Your task to perform on an android device: When is my next meeting? Image 0: 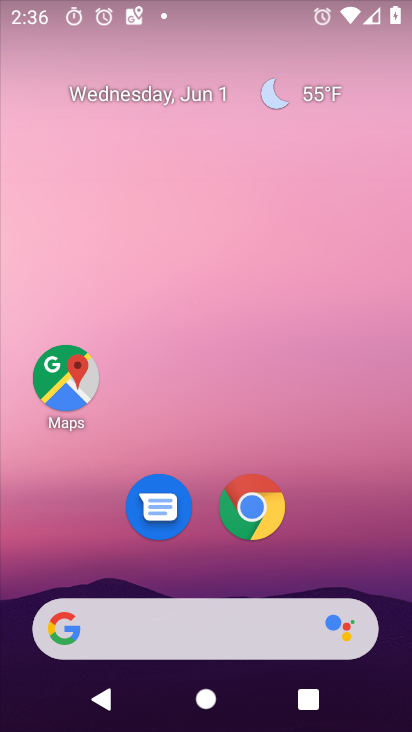
Step 0: drag from (371, 599) to (328, 8)
Your task to perform on an android device: When is my next meeting? Image 1: 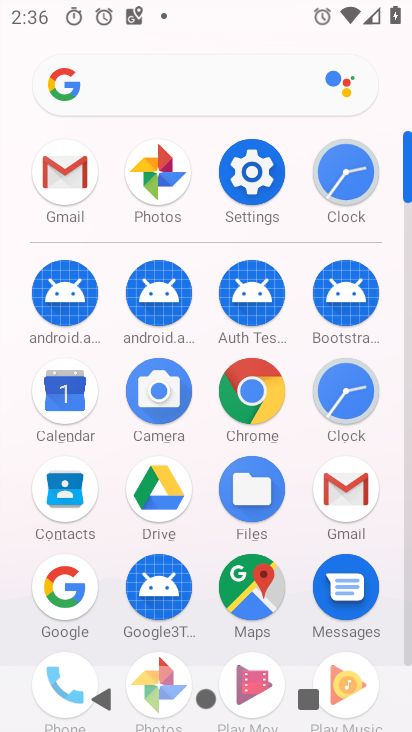
Step 1: click (62, 408)
Your task to perform on an android device: When is my next meeting? Image 2: 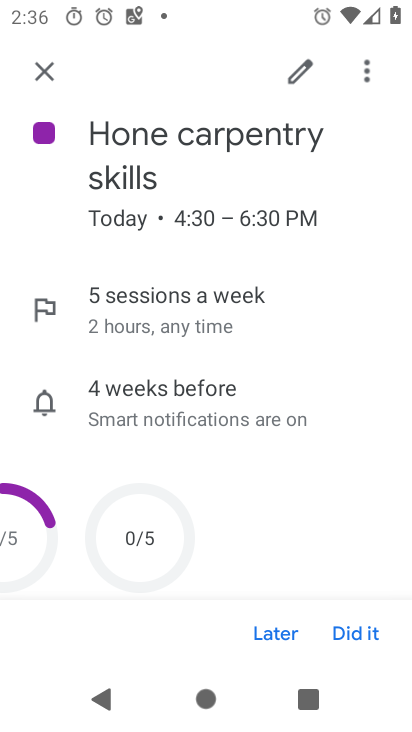
Step 2: click (35, 79)
Your task to perform on an android device: When is my next meeting? Image 3: 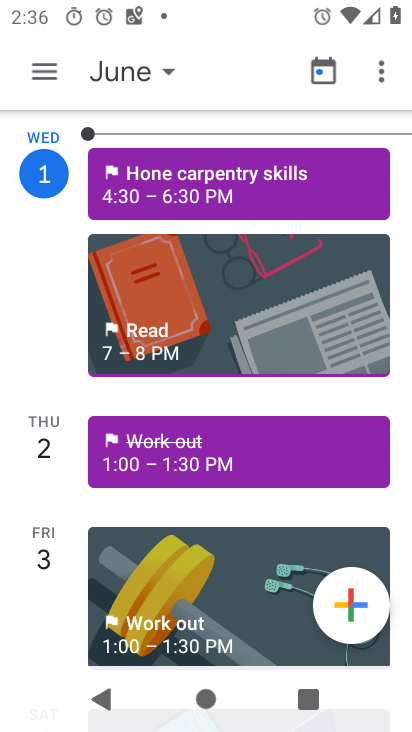
Step 3: drag from (207, 516) to (195, 138)
Your task to perform on an android device: When is my next meeting? Image 4: 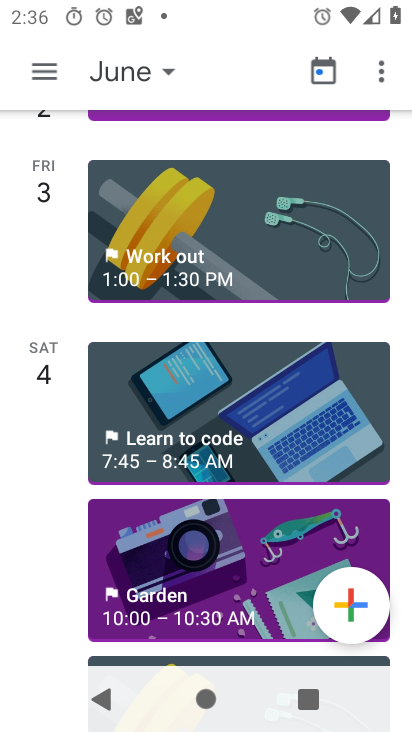
Step 4: drag from (181, 486) to (185, 154)
Your task to perform on an android device: When is my next meeting? Image 5: 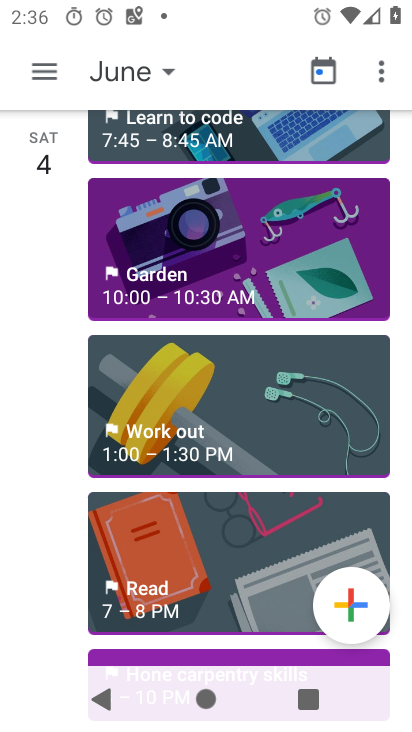
Step 5: drag from (176, 478) to (171, 170)
Your task to perform on an android device: When is my next meeting? Image 6: 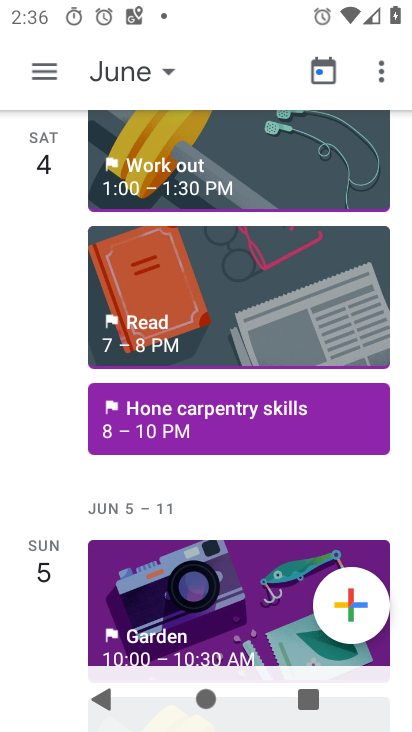
Step 6: drag from (196, 500) to (199, 194)
Your task to perform on an android device: When is my next meeting? Image 7: 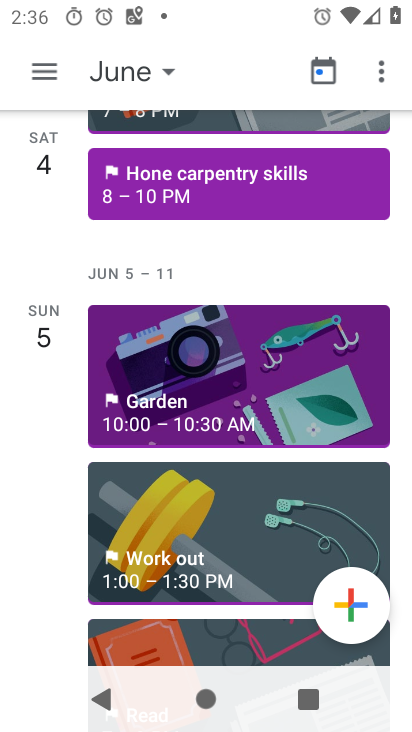
Step 7: drag from (187, 541) to (191, 229)
Your task to perform on an android device: When is my next meeting? Image 8: 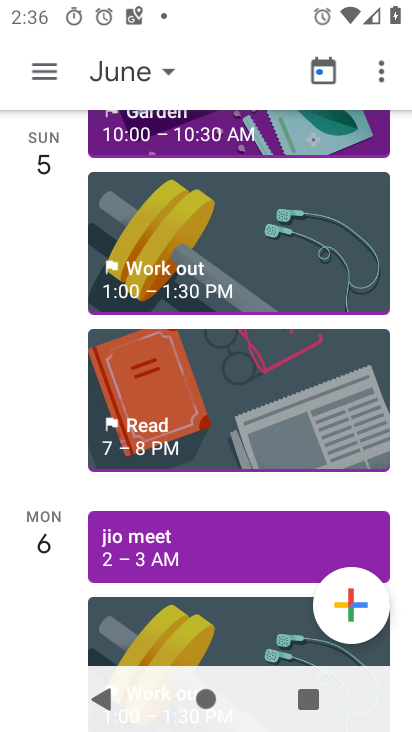
Step 8: click (177, 553)
Your task to perform on an android device: When is my next meeting? Image 9: 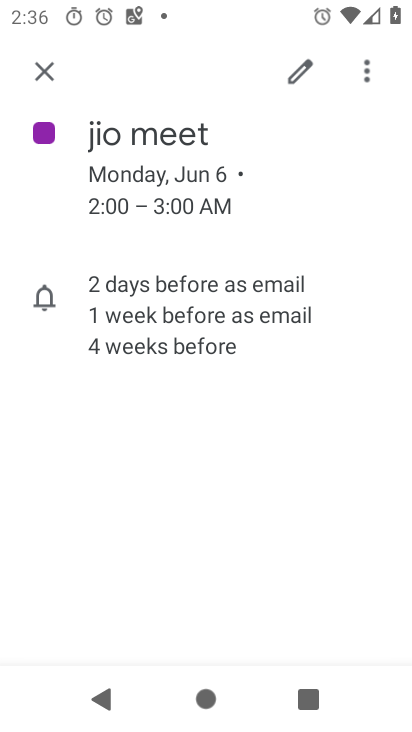
Step 9: task complete